Your task to perform on an android device: Search for the best books on Goodreads Image 0: 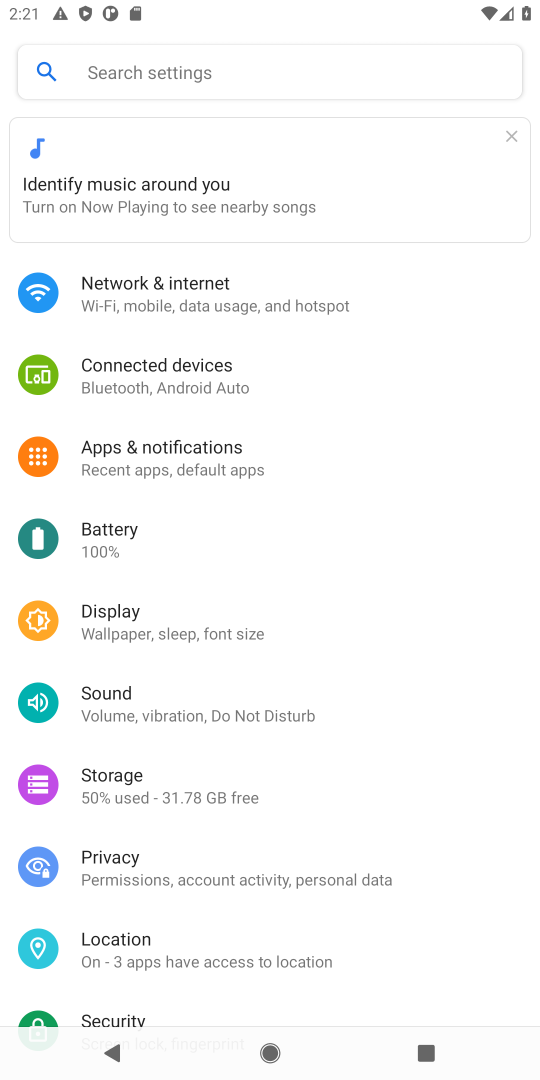
Step 0: press home button
Your task to perform on an android device: Search for the best books on Goodreads Image 1: 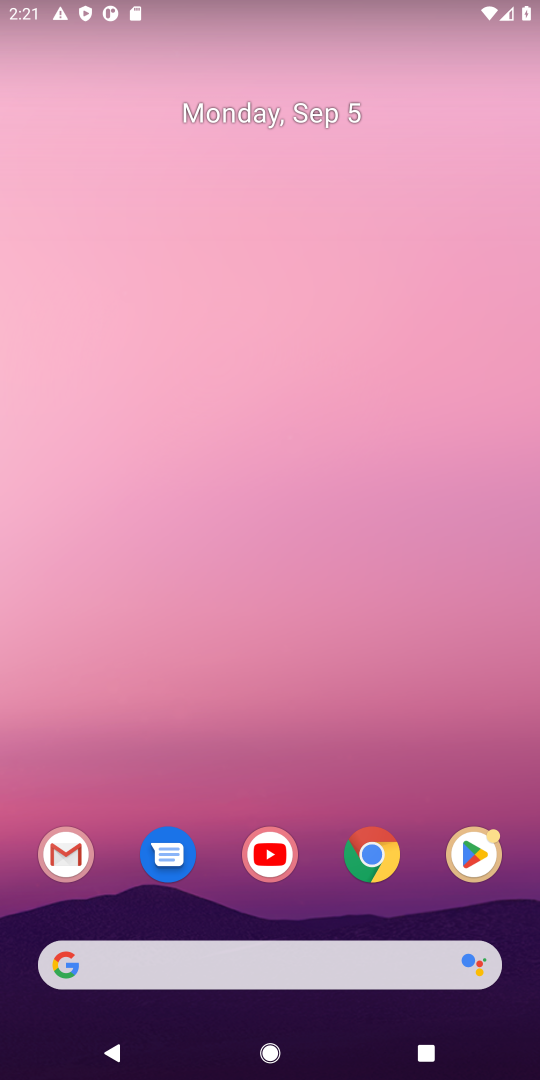
Step 1: click (348, 956)
Your task to perform on an android device: Search for the best books on Goodreads Image 2: 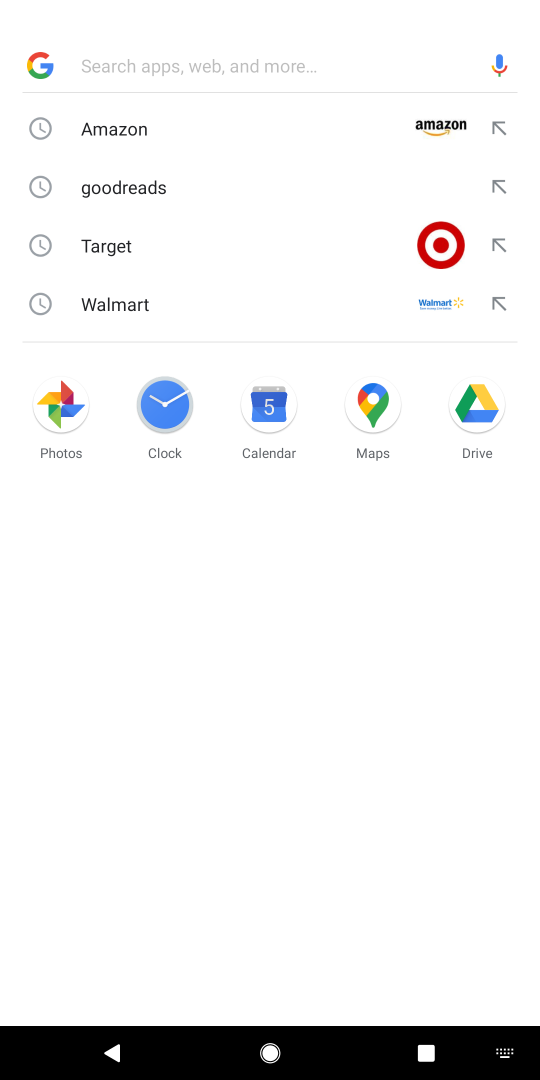
Step 2: type "goodreads"
Your task to perform on an android device: Search for the best books on Goodreads Image 3: 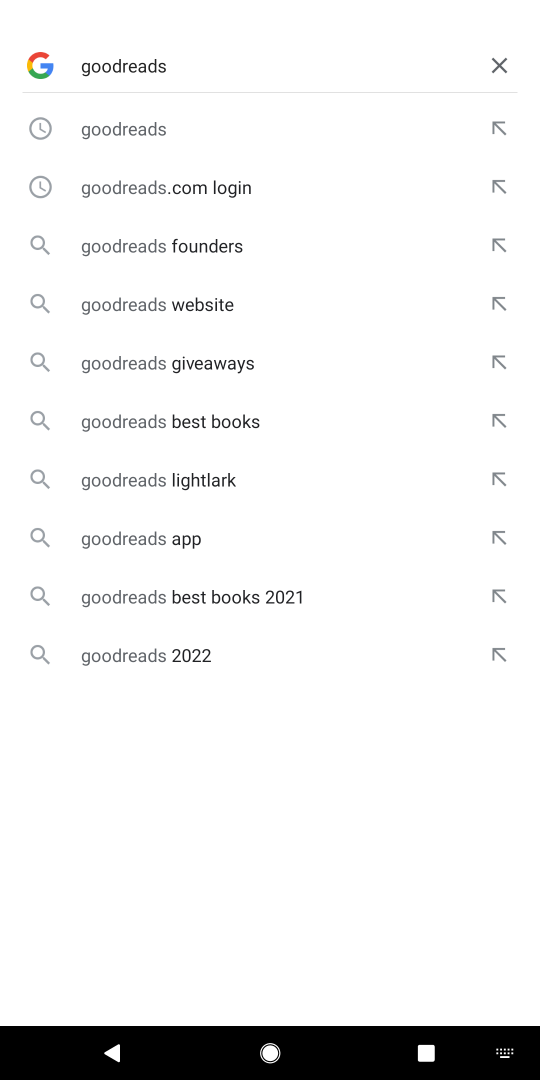
Step 3: press enter
Your task to perform on an android device: Search for the best books on Goodreads Image 4: 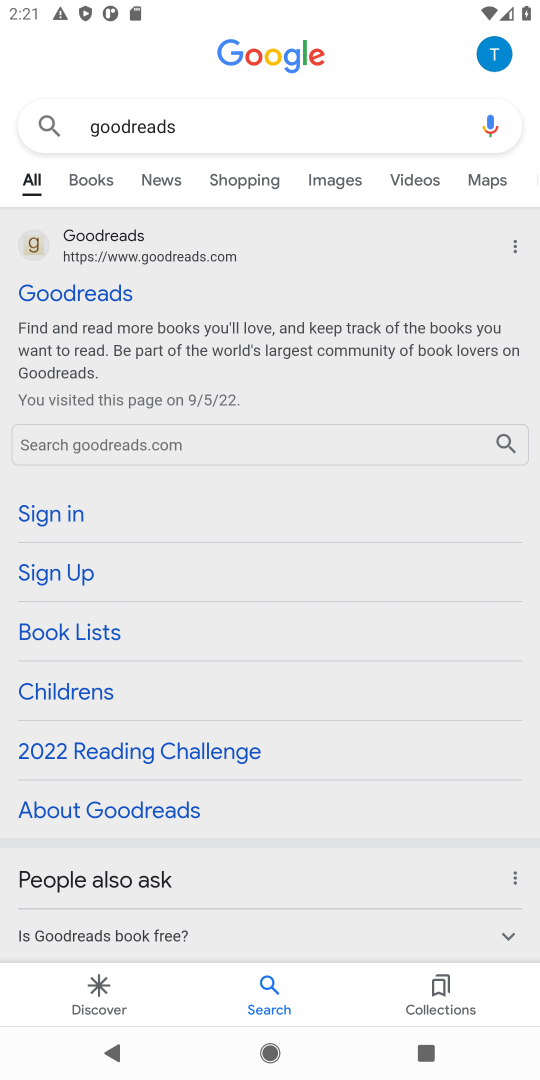
Step 4: click (88, 291)
Your task to perform on an android device: Search for the best books on Goodreads Image 5: 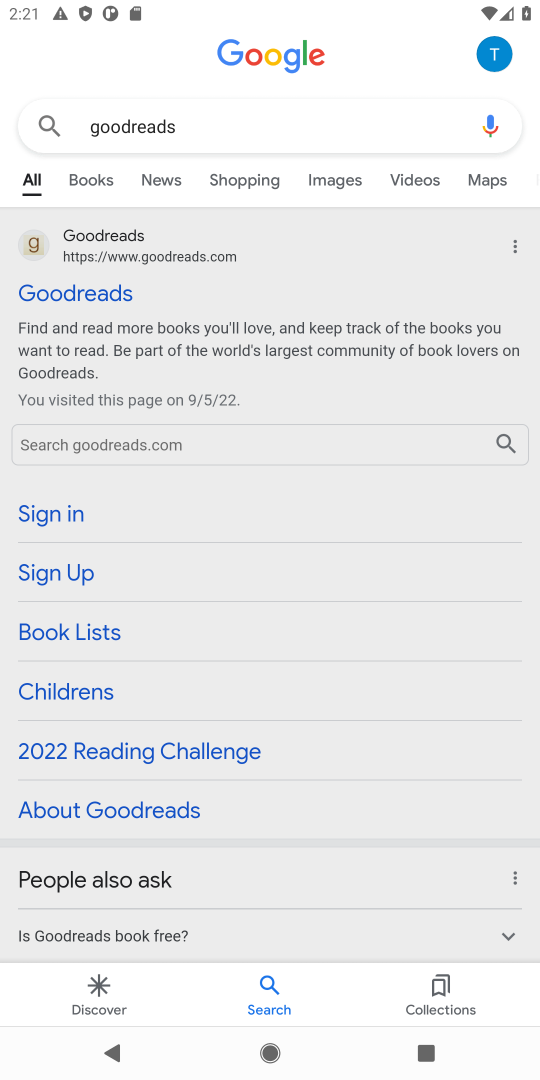
Step 5: click (100, 280)
Your task to perform on an android device: Search for the best books on Goodreads Image 6: 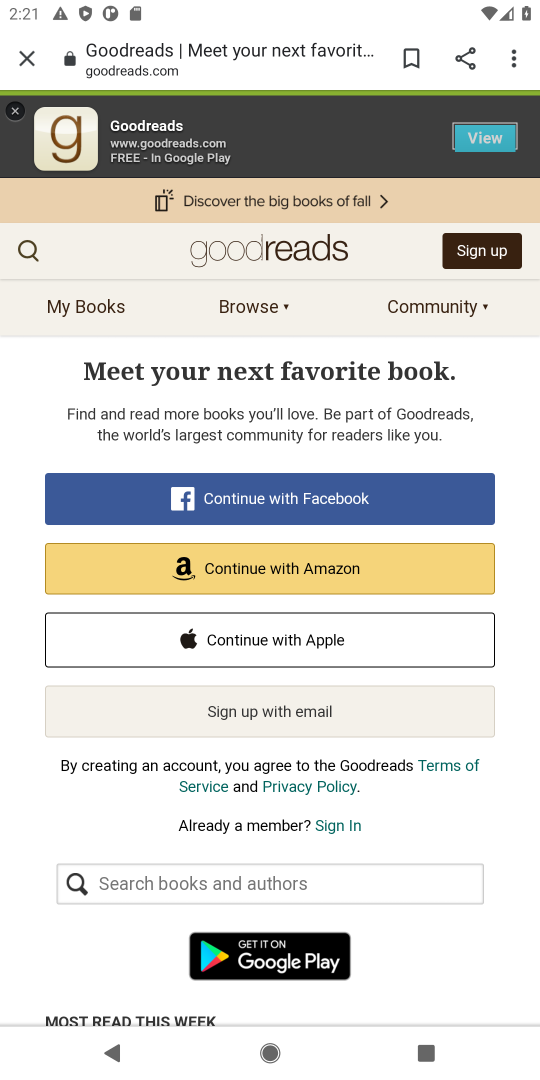
Step 6: click (25, 240)
Your task to perform on an android device: Search for the best books on Goodreads Image 7: 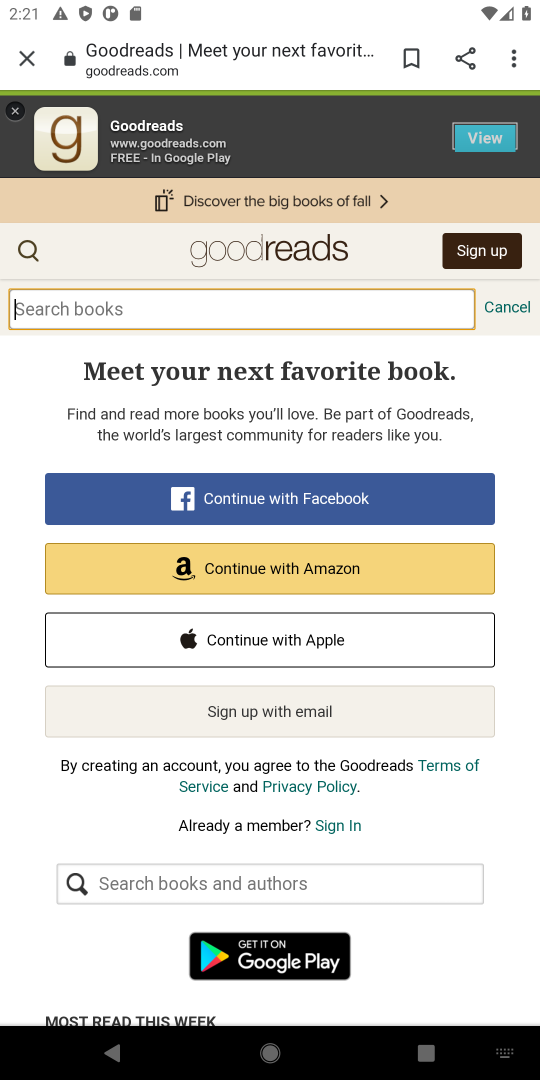
Step 7: type "best books"
Your task to perform on an android device: Search for the best books on Goodreads Image 8: 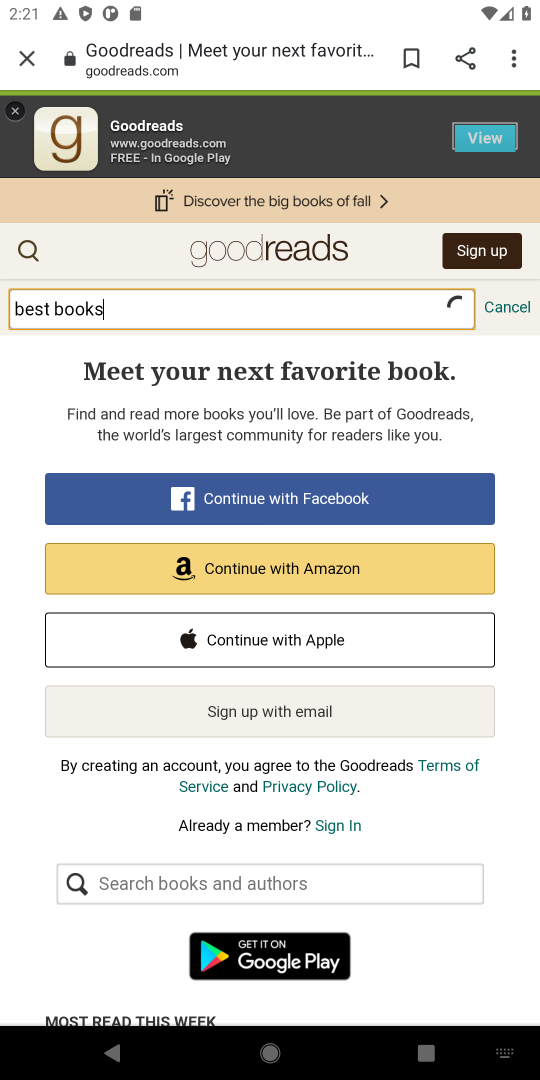
Step 8: press enter
Your task to perform on an android device: Search for the best books on Goodreads Image 9: 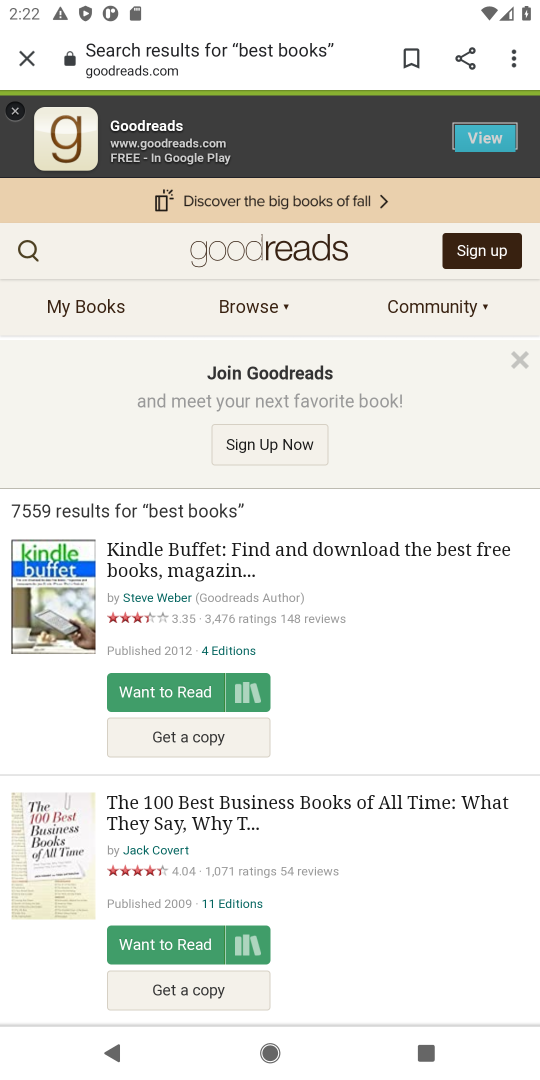
Step 9: task complete